Your task to perform on an android device: Search for sushi restaurants on Maps Image 0: 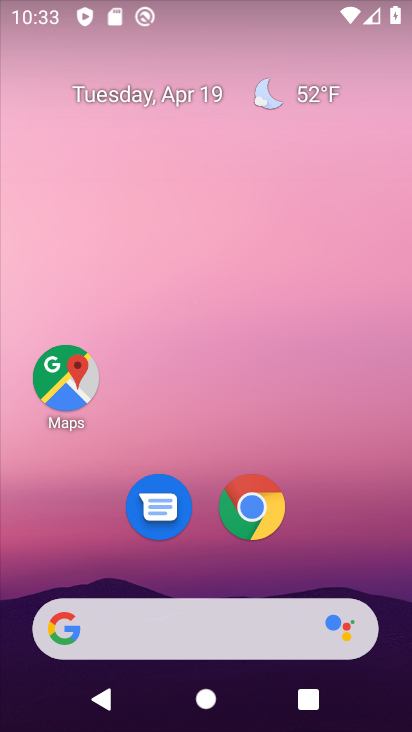
Step 0: drag from (370, 550) to (367, 143)
Your task to perform on an android device: Search for sushi restaurants on Maps Image 1: 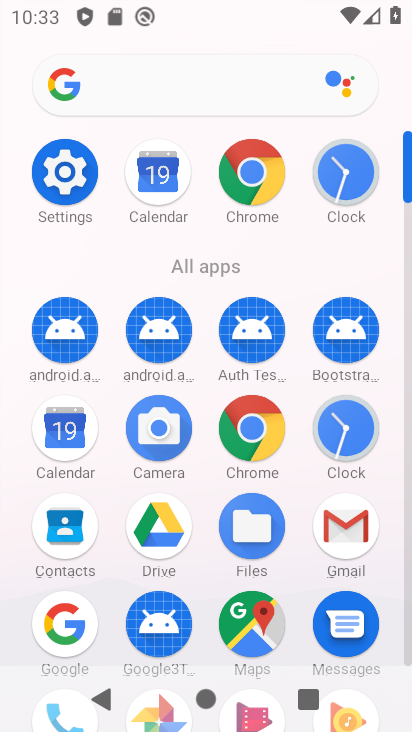
Step 1: drag from (397, 562) to (401, 233)
Your task to perform on an android device: Search for sushi restaurants on Maps Image 2: 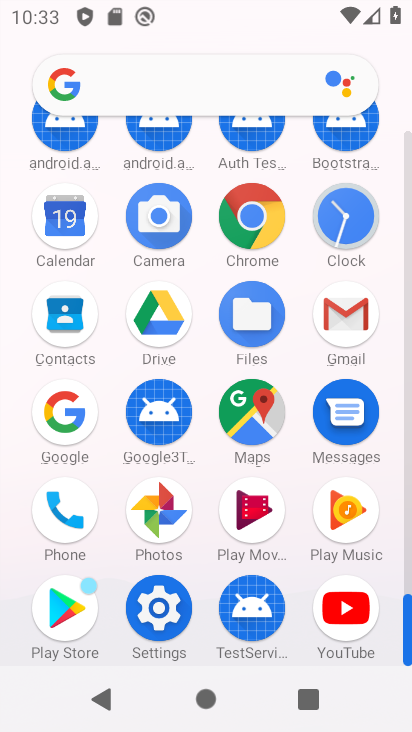
Step 2: click (252, 424)
Your task to perform on an android device: Search for sushi restaurants on Maps Image 3: 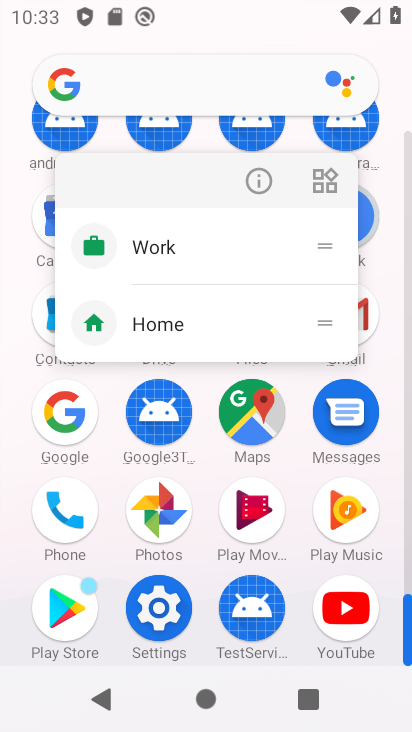
Step 3: click (249, 411)
Your task to perform on an android device: Search for sushi restaurants on Maps Image 4: 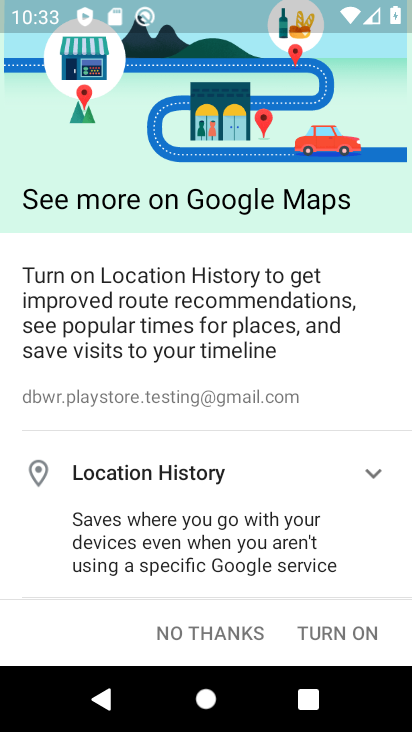
Step 4: click (242, 640)
Your task to perform on an android device: Search for sushi restaurants on Maps Image 5: 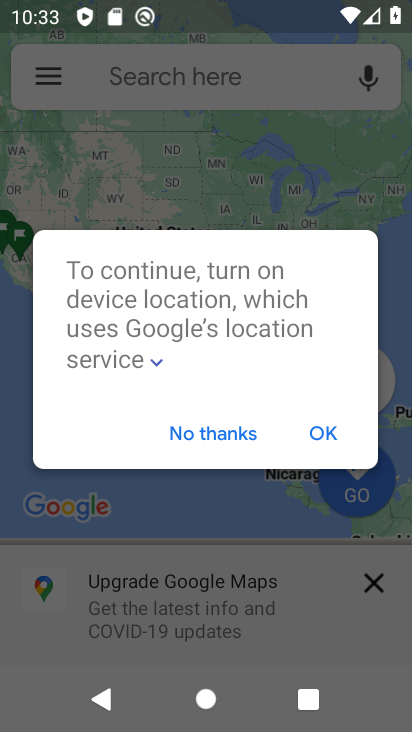
Step 5: click (230, 441)
Your task to perform on an android device: Search for sushi restaurants on Maps Image 6: 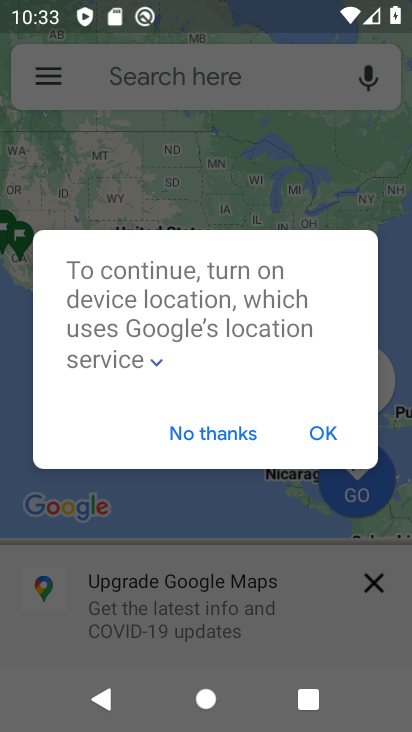
Step 6: click (226, 431)
Your task to perform on an android device: Search for sushi restaurants on Maps Image 7: 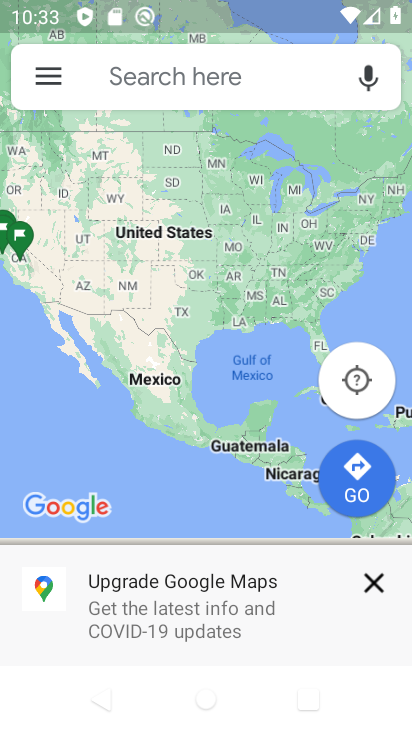
Step 7: click (250, 85)
Your task to perform on an android device: Search for sushi restaurants on Maps Image 8: 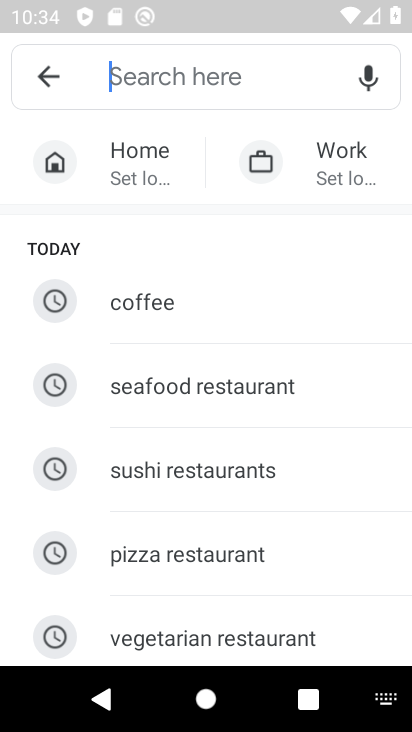
Step 8: type "sushi restaurants"
Your task to perform on an android device: Search for sushi restaurants on Maps Image 9: 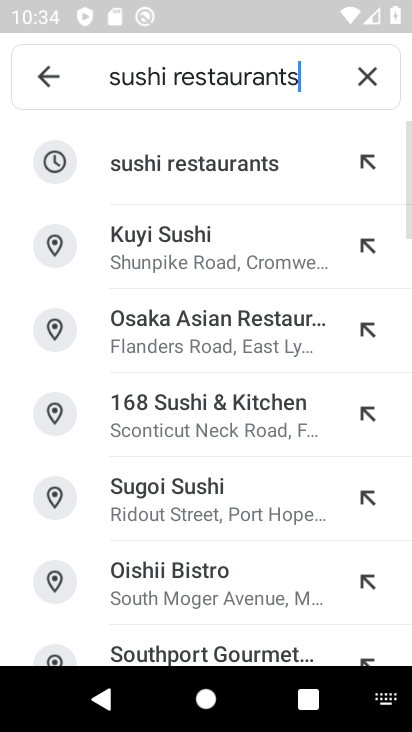
Step 9: click (218, 156)
Your task to perform on an android device: Search for sushi restaurants on Maps Image 10: 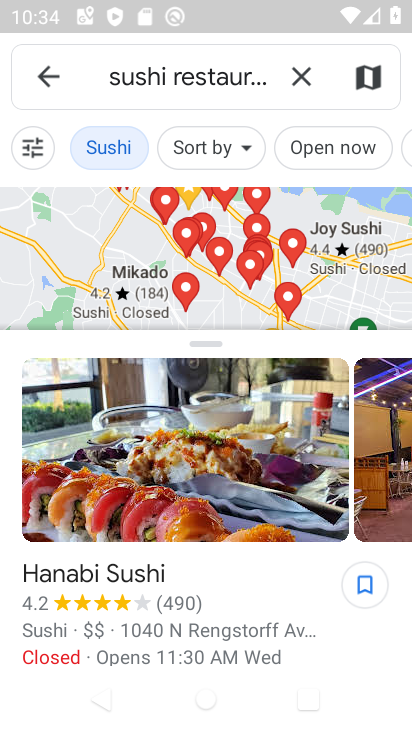
Step 10: task complete